Your task to perform on an android device: Open Reddit.com Image 0: 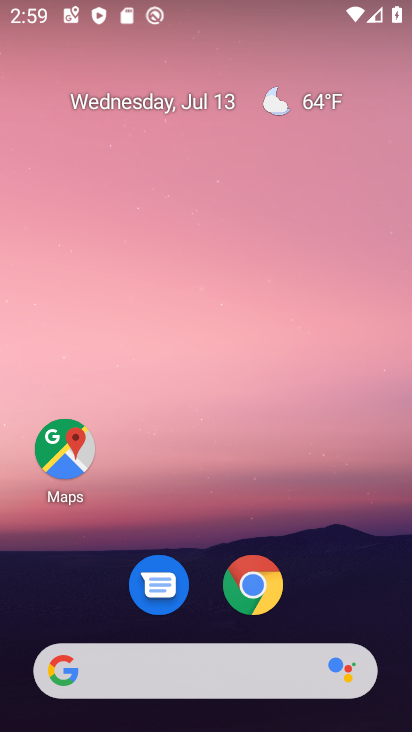
Step 0: click (242, 580)
Your task to perform on an android device: Open Reddit.com Image 1: 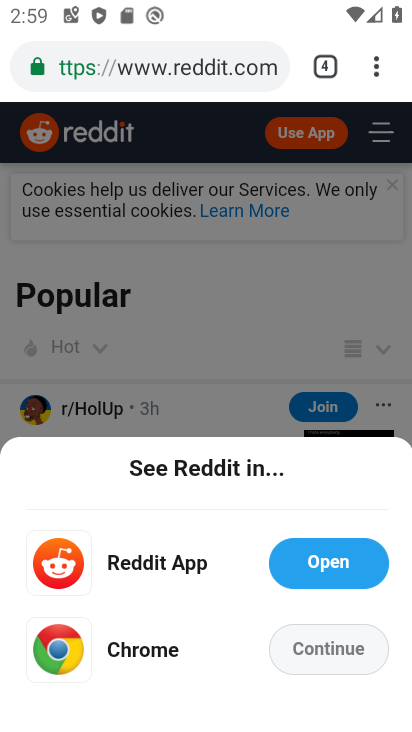
Step 1: task complete